Your task to perform on an android device: Open internet settings Image 0: 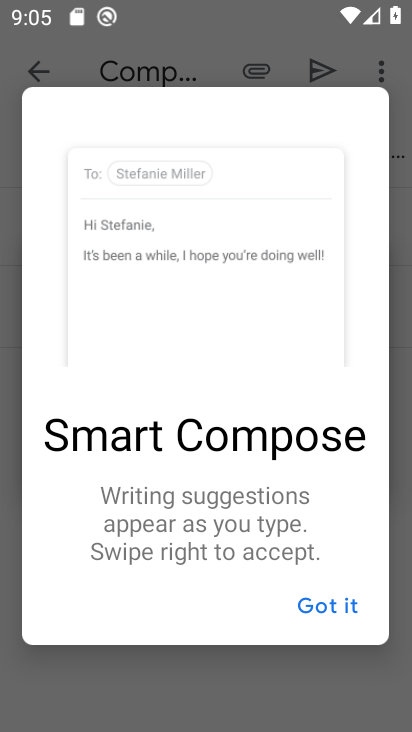
Step 0: drag from (232, 669) to (386, 267)
Your task to perform on an android device: Open internet settings Image 1: 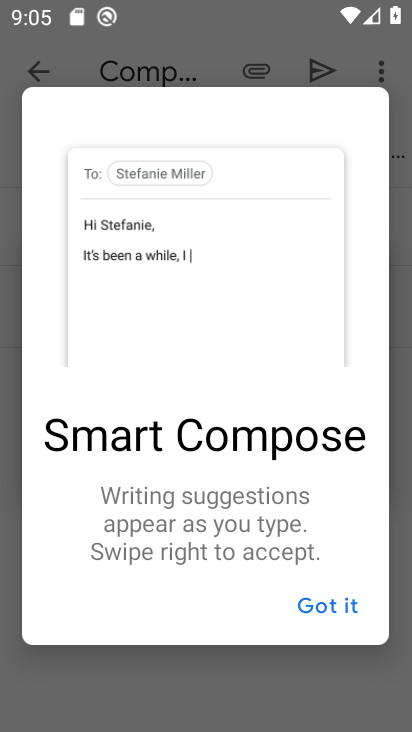
Step 1: press home button
Your task to perform on an android device: Open internet settings Image 2: 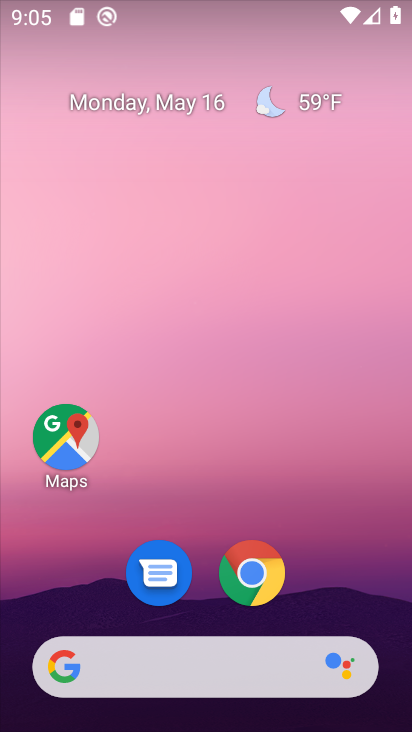
Step 2: drag from (188, 638) to (211, 143)
Your task to perform on an android device: Open internet settings Image 3: 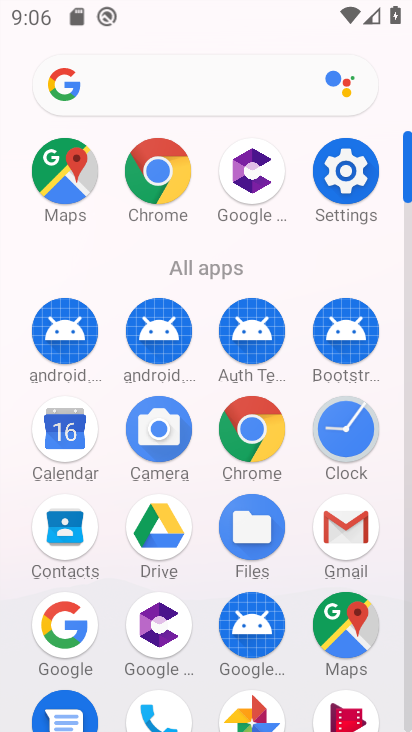
Step 3: click (325, 178)
Your task to perform on an android device: Open internet settings Image 4: 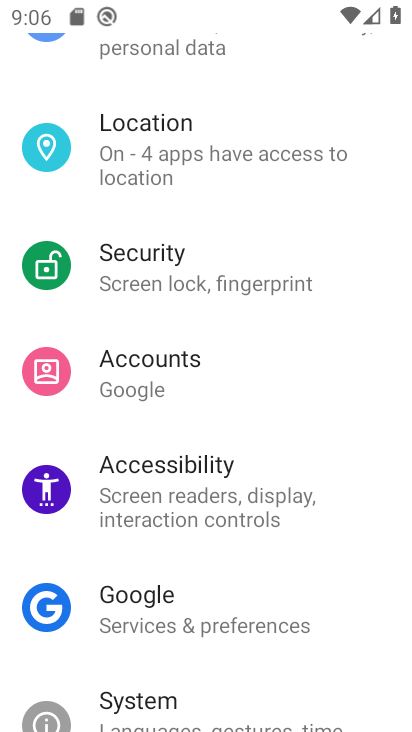
Step 4: drag from (304, 152) to (213, 688)
Your task to perform on an android device: Open internet settings Image 5: 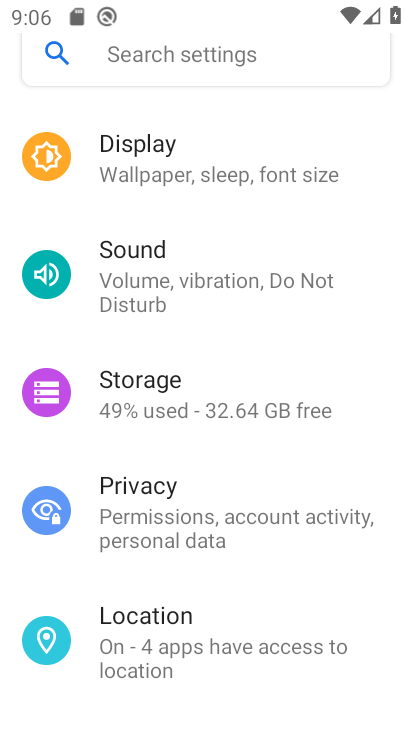
Step 5: drag from (174, 205) to (202, 567)
Your task to perform on an android device: Open internet settings Image 6: 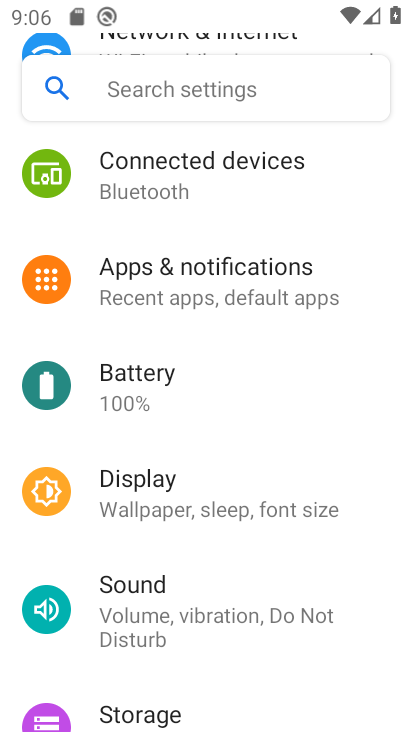
Step 6: drag from (159, 186) to (172, 590)
Your task to perform on an android device: Open internet settings Image 7: 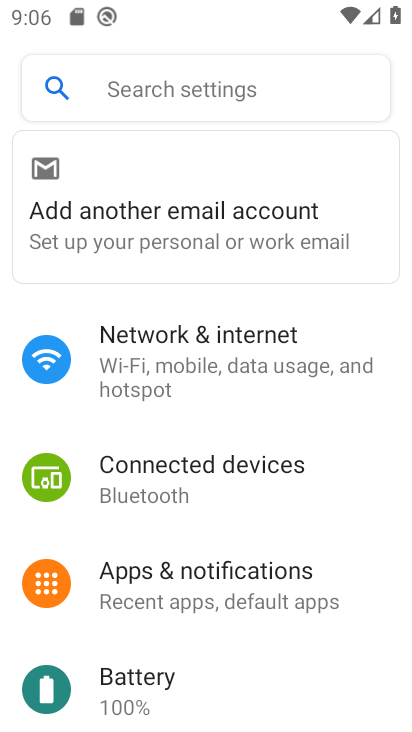
Step 7: click (188, 351)
Your task to perform on an android device: Open internet settings Image 8: 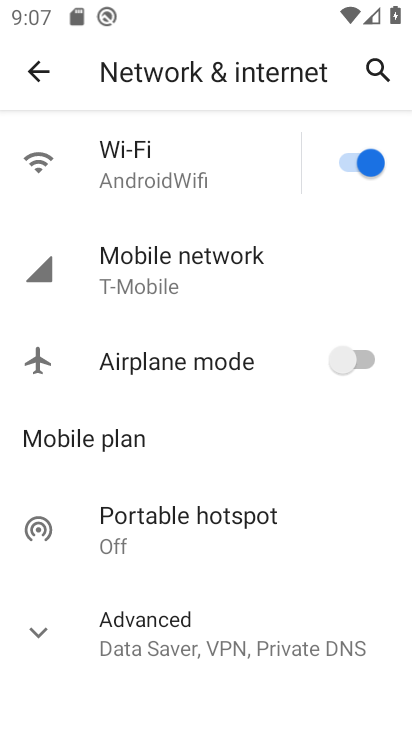
Step 8: task complete